Your task to perform on an android device: check google app version Image 0: 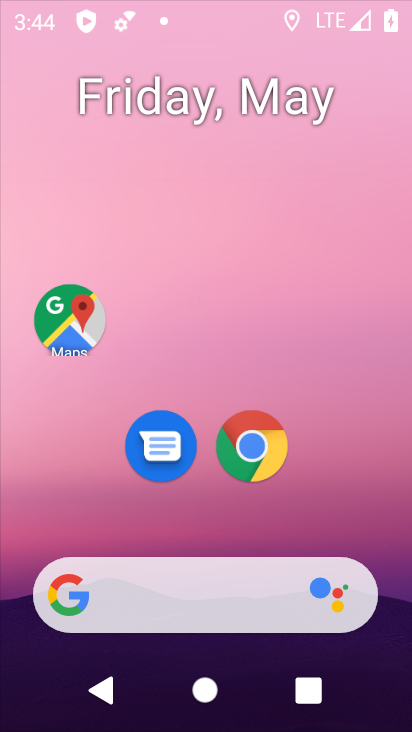
Step 0: drag from (404, 259) to (411, 226)
Your task to perform on an android device: check google app version Image 1: 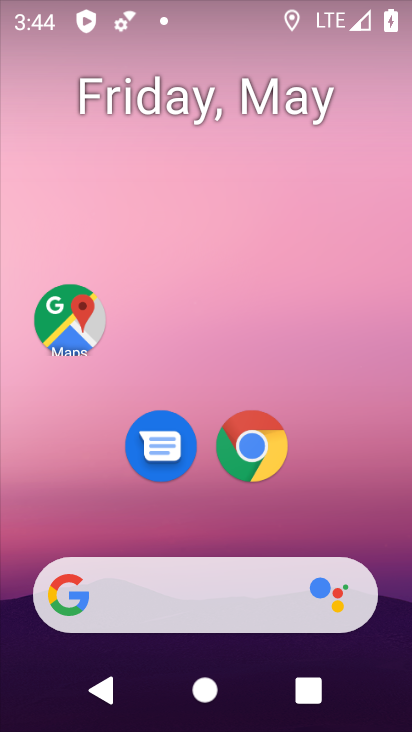
Step 1: drag from (330, 524) to (412, 61)
Your task to perform on an android device: check google app version Image 2: 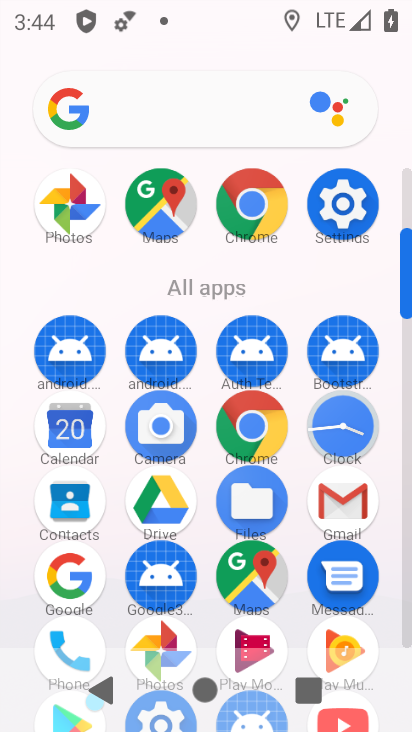
Step 2: drag from (401, 588) to (376, 166)
Your task to perform on an android device: check google app version Image 3: 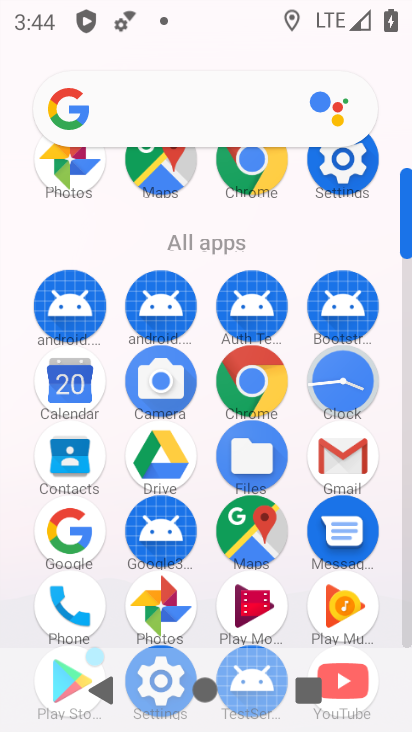
Step 3: click (70, 465)
Your task to perform on an android device: check google app version Image 4: 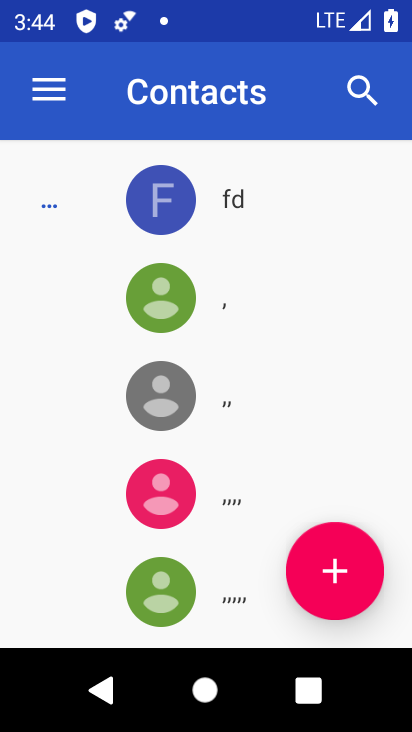
Step 4: press home button
Your task to perform on an android device: check google app version Image 5: 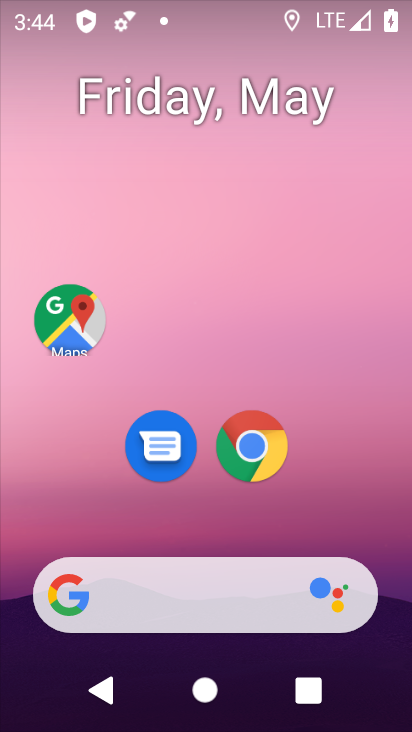
Step 5: drag from (337, 477) to (410, 84)
Your task to perform on an android device: check google app version Image 6: 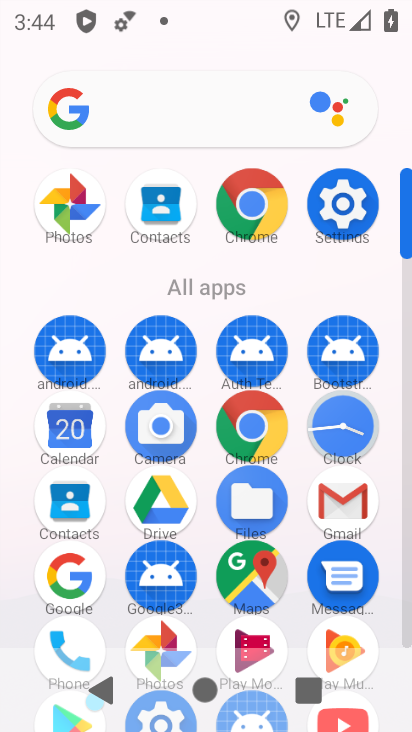
Step 6: drag from (384, 548) to (391, 278)
Your task to perform on an android device: check google app version Image 7: 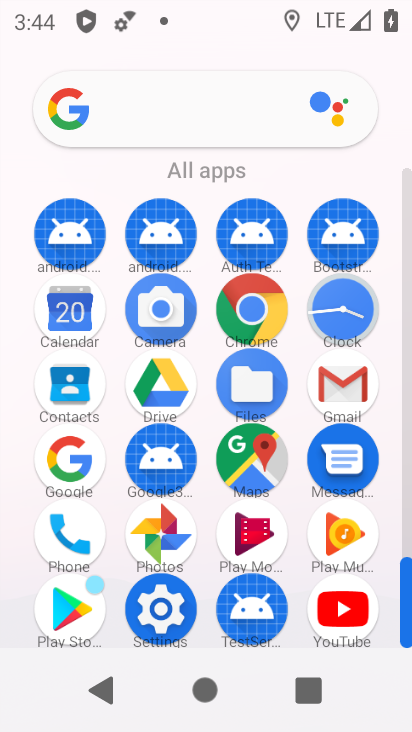
Step 7: click (82, 475)
Your task to perform on an android device: check google app version Image 8: 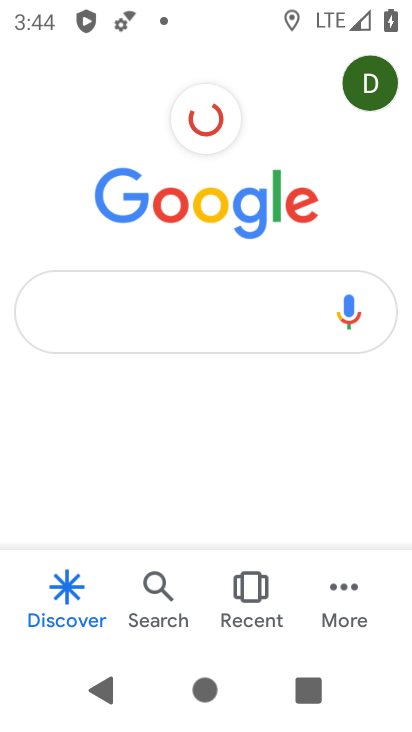
Step 8: click (344, 597)
Your task to perform on an android device: check google app version Image 9: 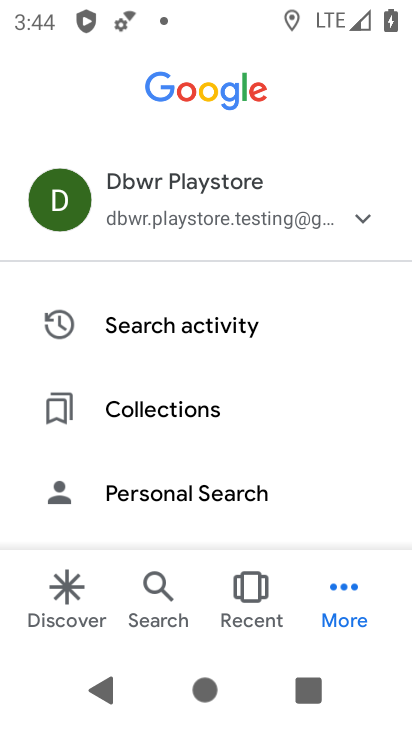
Step 9: drag from (310, 386) to (357, 92)
Your task to perform on an android device: check google app version Image 10: 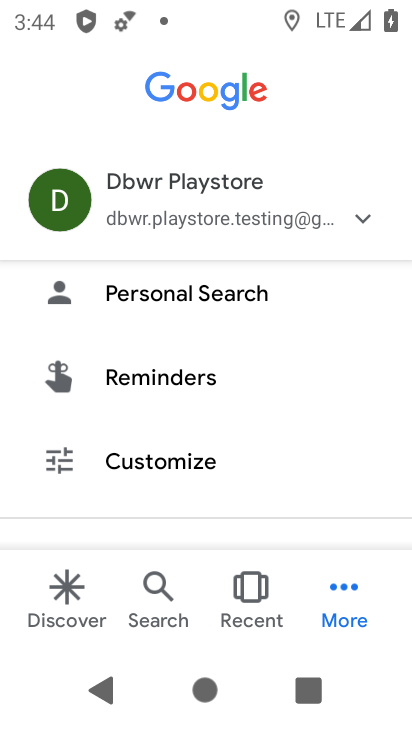
Step 10: drag from (238, 465) to (331, 53)
Your task to perform on an android device: check google app version Image 11: 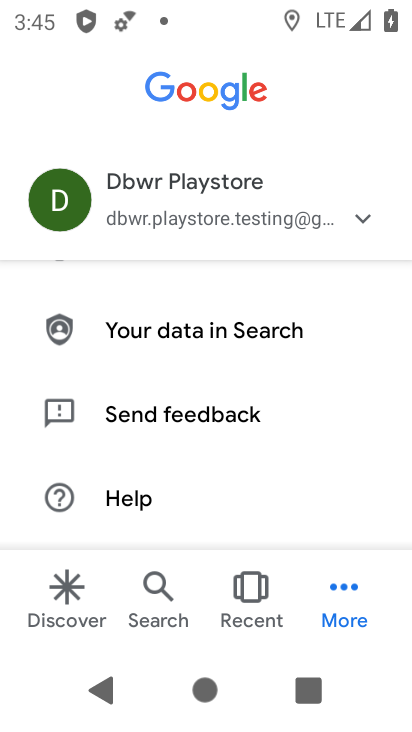
Step 11: drag from (207, 489) to (282, 136)
Your task to perform on an android device: check google app version Image 12: 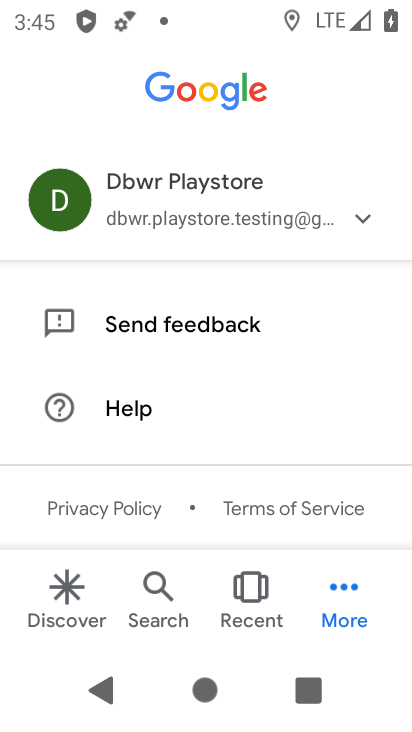
Step 12: drag from (249, 292) to (218, 524)
Your task to perform on an android device: check google app version Image 13: 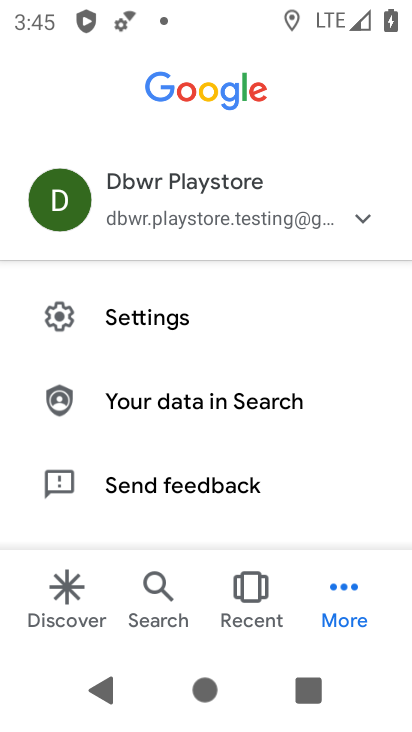
Step 13: click (143, 321)
Your task to perform on an android device: check google app version Image 14: 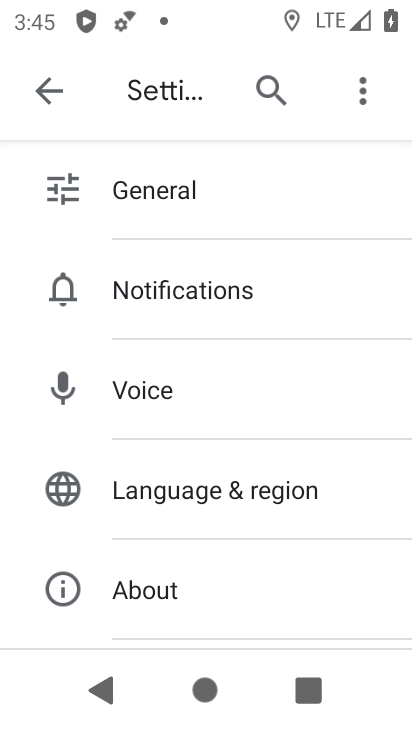
Step 14: drag from (152, 526) to (214, 174)
Your task to perform on an android device: check google app version Image 15: 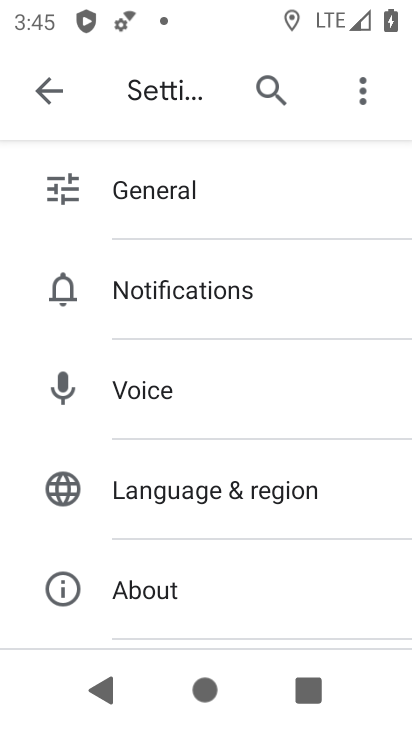
Step 15: drag from (191, 558) to (271, 94)
Your task to perform on an android device: check google app version Image 16: 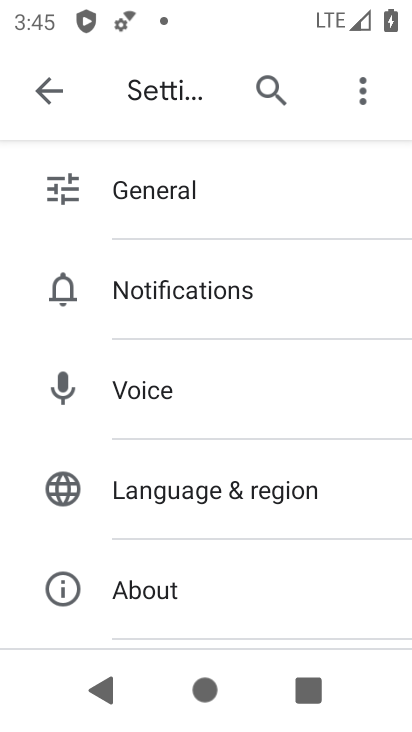
Step 16: drag from (246, 594) to (323, 253)
Your task to perform on an android device: check google app version Image 17: 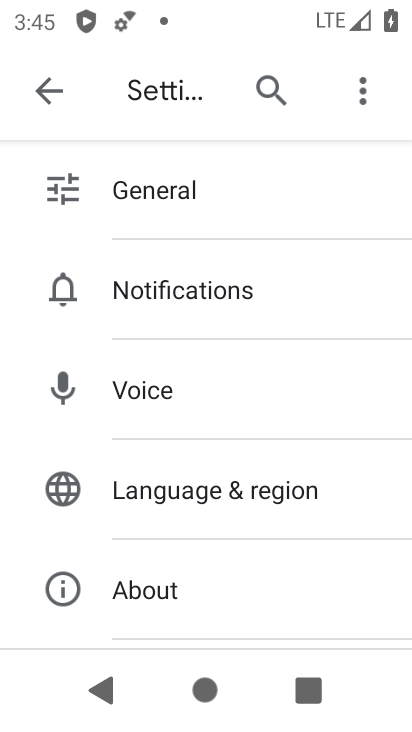
Step 17: drag from (225, 587) to (317, 242)
Your task to perform on an android device: check google app version Image 18: 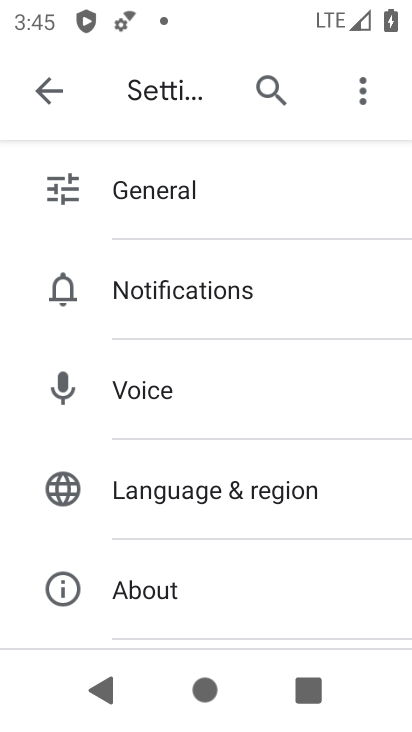
Step 18: click (168, 610)
Your task to perform on an android device: check google app version Image 19: 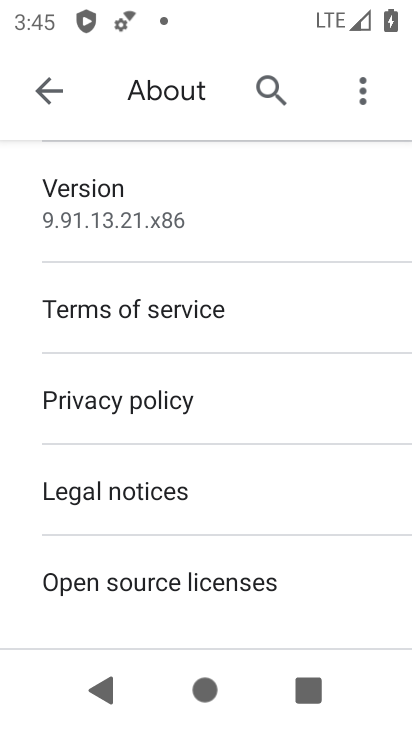
Step 19: click (191, 194)
Your task to perform on an android device: check google app version Image 20: 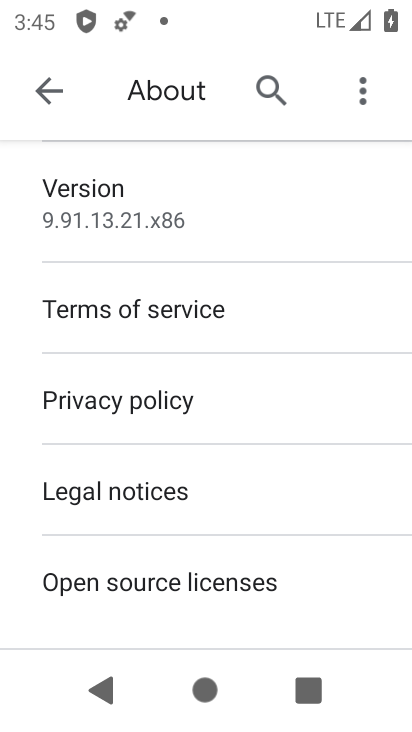
Step 20: task complete